Your task to perform on an android device: Open battery settings Image 0: 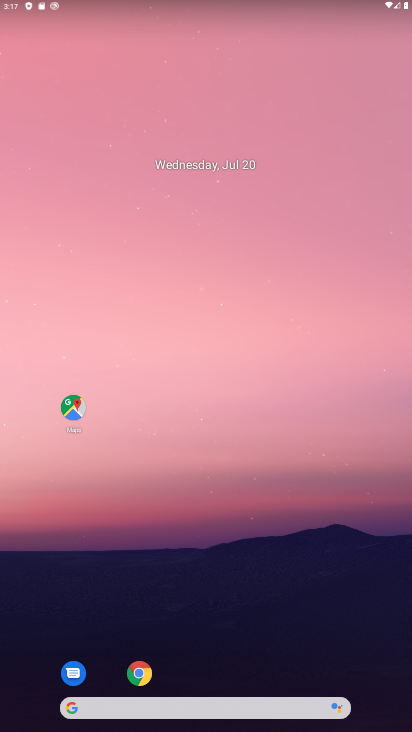
Step 0: drag from (237, 638) to (228, 86)
Your task to perform on an android device: Open battery settings Image 1: 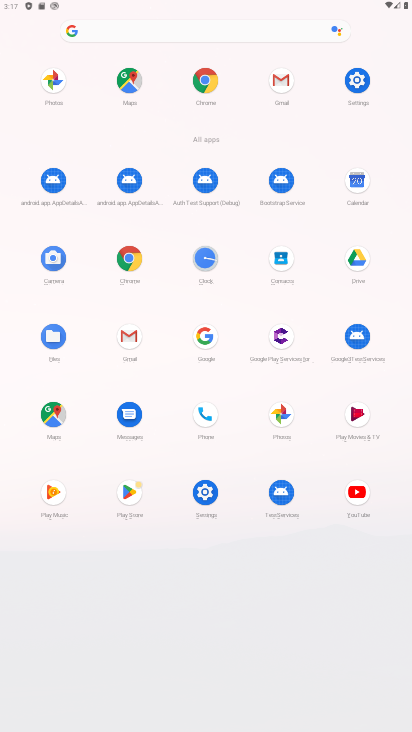
Step 1: click (367, 75)
Your task to perform on an android device: Open battery settings Image 2: 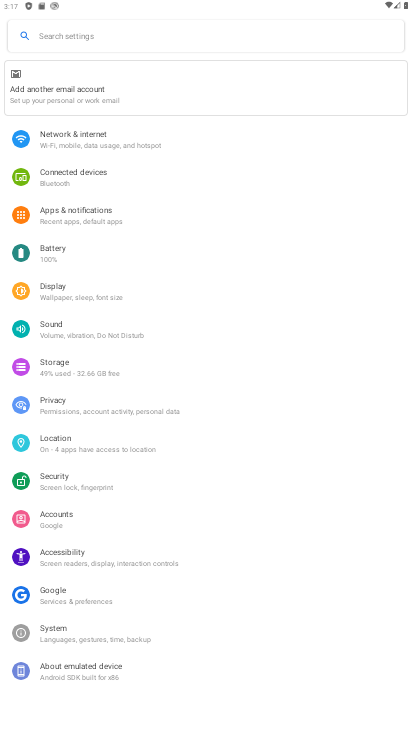
Step 2: click (52, 250)
Your task to perform on an android device: Open battery settings Image 3: 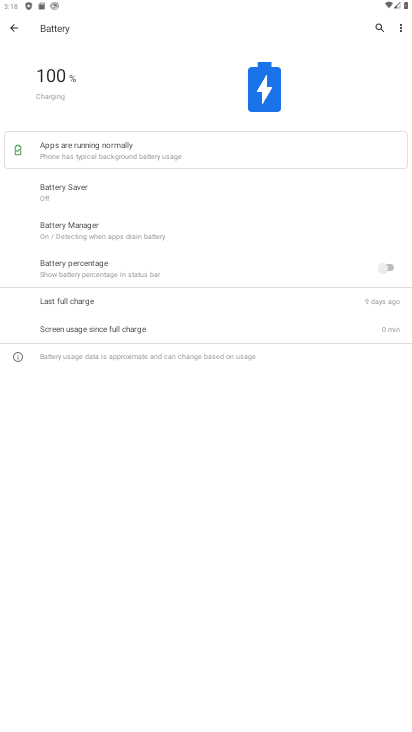
Step 3: task complete